Your task to perform on an android device: Do I have any events this weekend? Image 0: 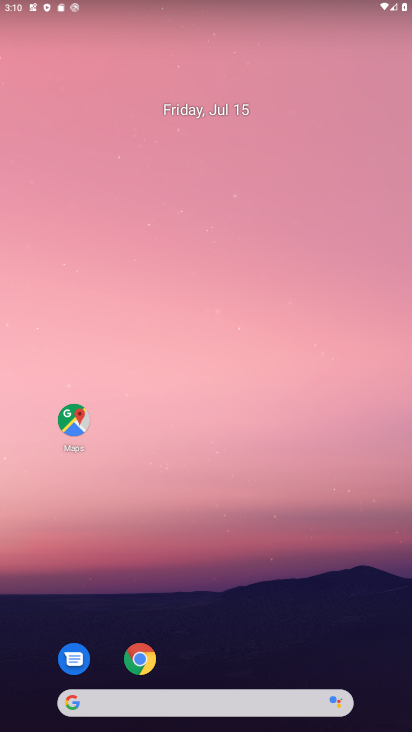
Step 0: drag from (165, 654) to (210, 252)
Your task to perform on an android device: Do I have any events this weekend? Image 1: 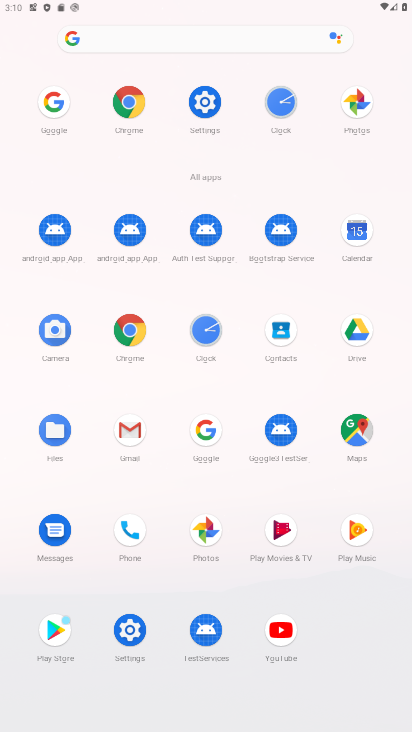
Step 1: click (345, 228)
Your task to perform on an android device: Do I have any events this weekend? Image 2: 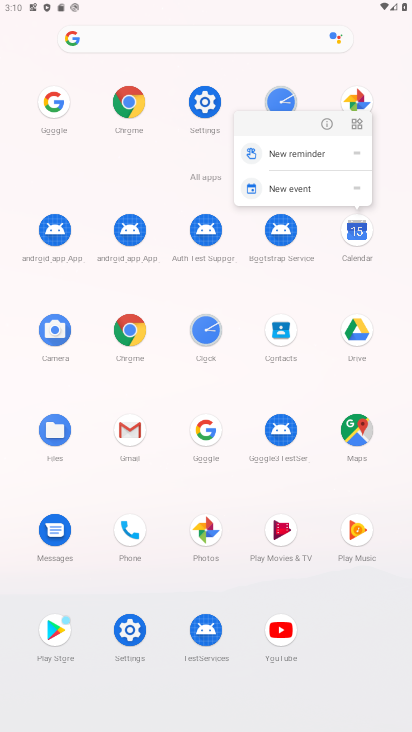
Step 2: click (351, 225)
Your task to perform on an android device: Do I have any events this weekend? Image 3: 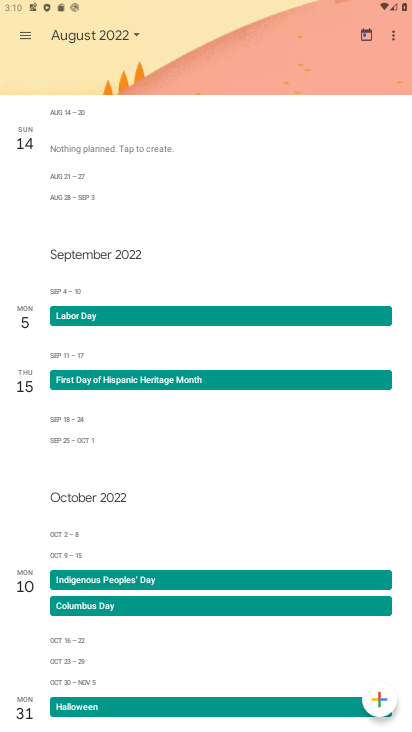
Step 3: click (95, 32)
Your task to perform on an android device: Do I have any events this weekend? Image 4: 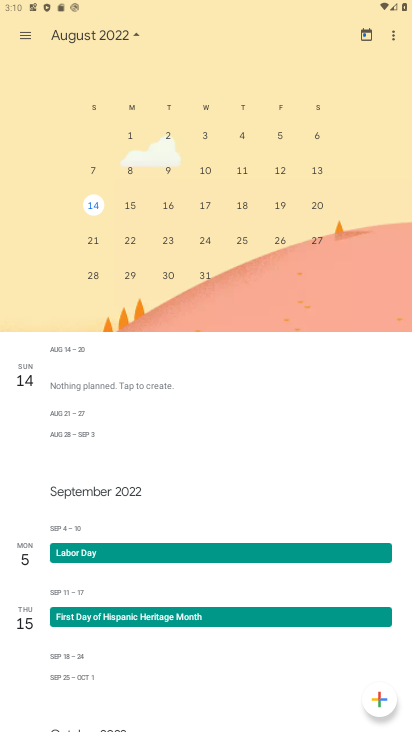
Step 4: drag from (63, 167) to (410, 184)
Your task to perform on an android device: Do I have any events this weekend? Image 5: 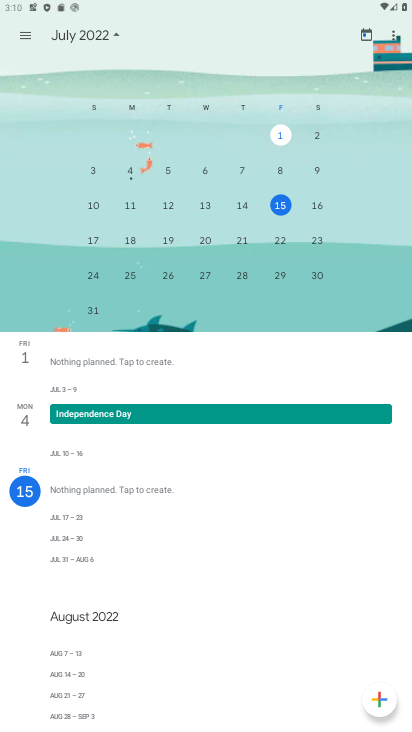
Step 5: click (313, 202)
Your task to perform on an android device: Do I have any events this weekend? Image 6: 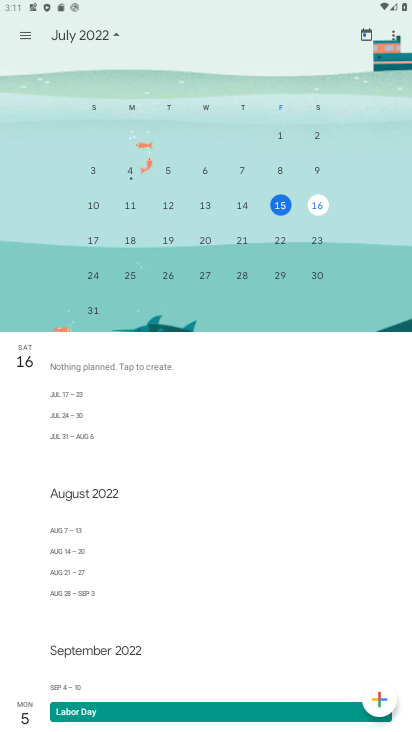
Step 6: click (95, 239)
Your task to perform on an android device: Do I have any events this weekend? Image 7: 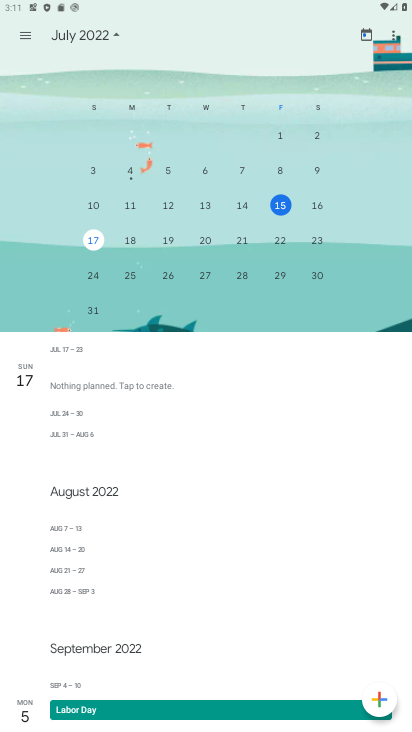
Step 7: task complete